Your task to perform on an android device: turn off picture-in-picture Image 0: 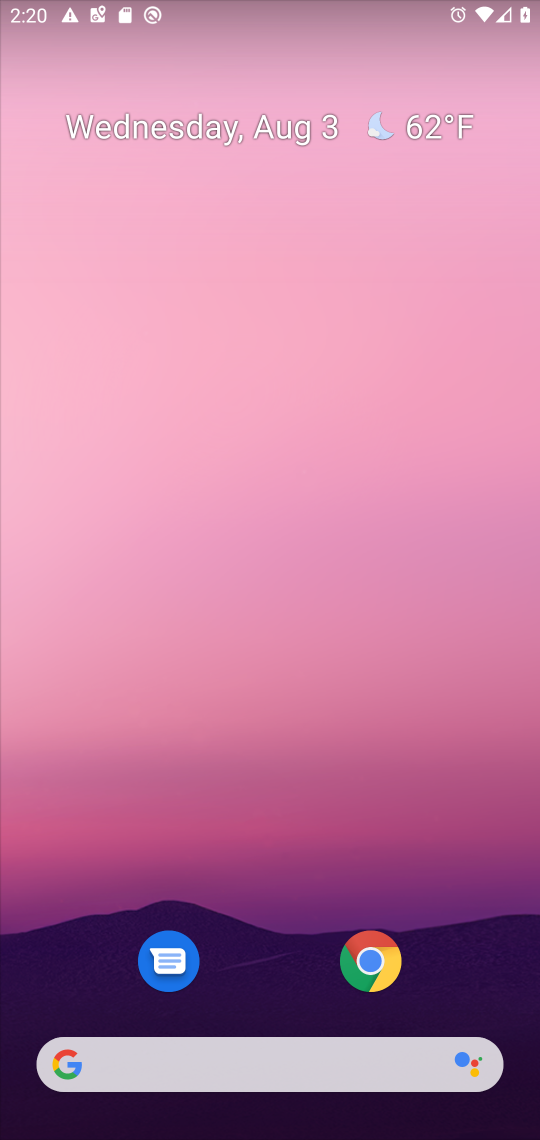
Step 0: click (376, 957)
Your task to perform on an android device: turn off picture-in-picture Image 1: 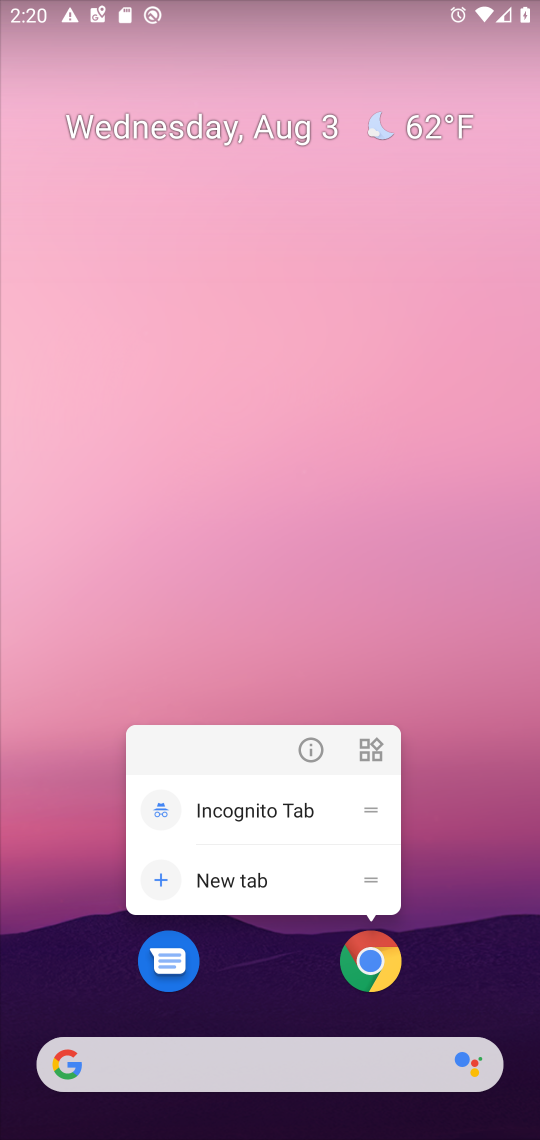
Step 1: click (307, 754)
Your task to perform on an android device: turn off picture-in-picture Image 2: 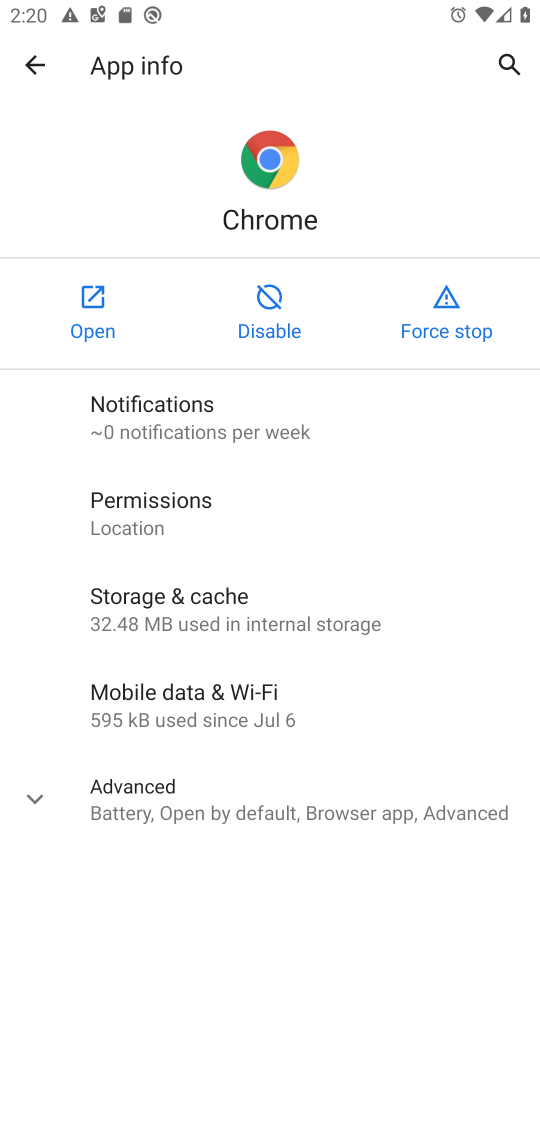
Step 2: click (28, 803)
Your task to perform on an android device: turn off picture-in-picture Image 3: 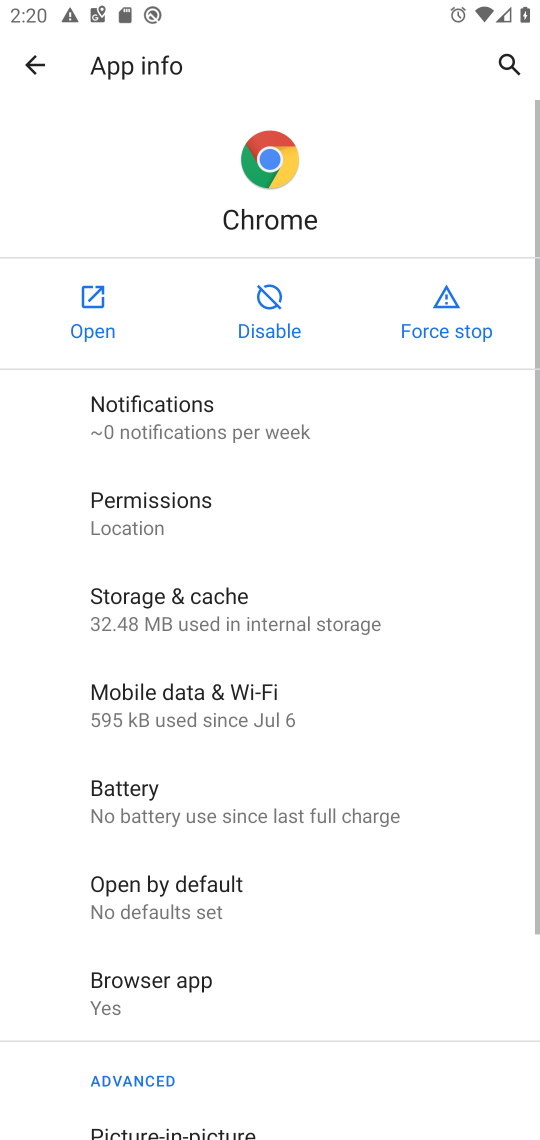
Step 3: drag from (372, 861) to (384, 328)
Your task to perform on an android device: turn off picture-in-picture Image 4: 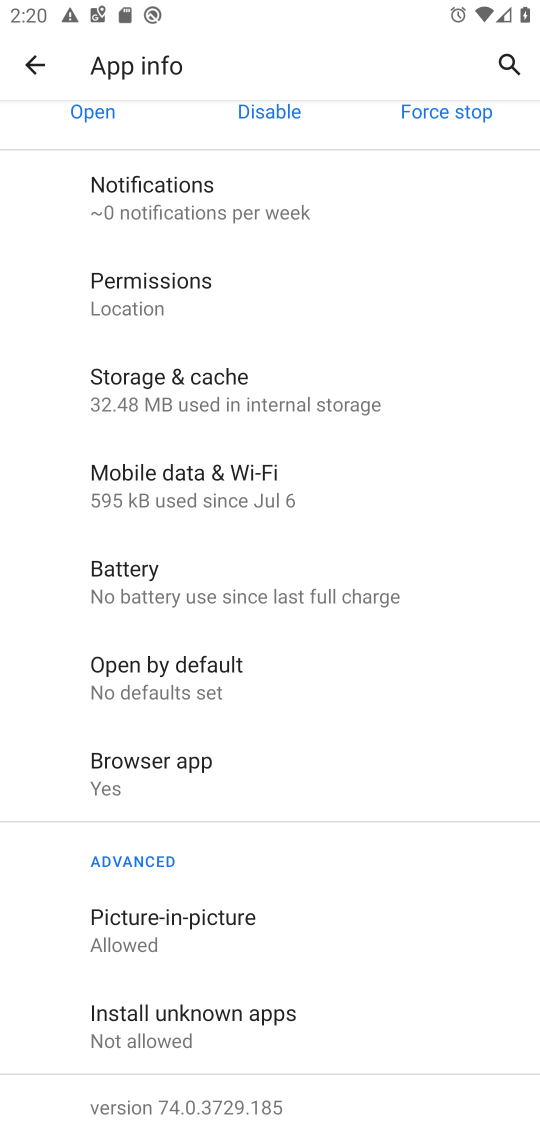
Step 4: click (134, 938)
Your task to perform on an android device: turn off picture-in-picture Image 5: 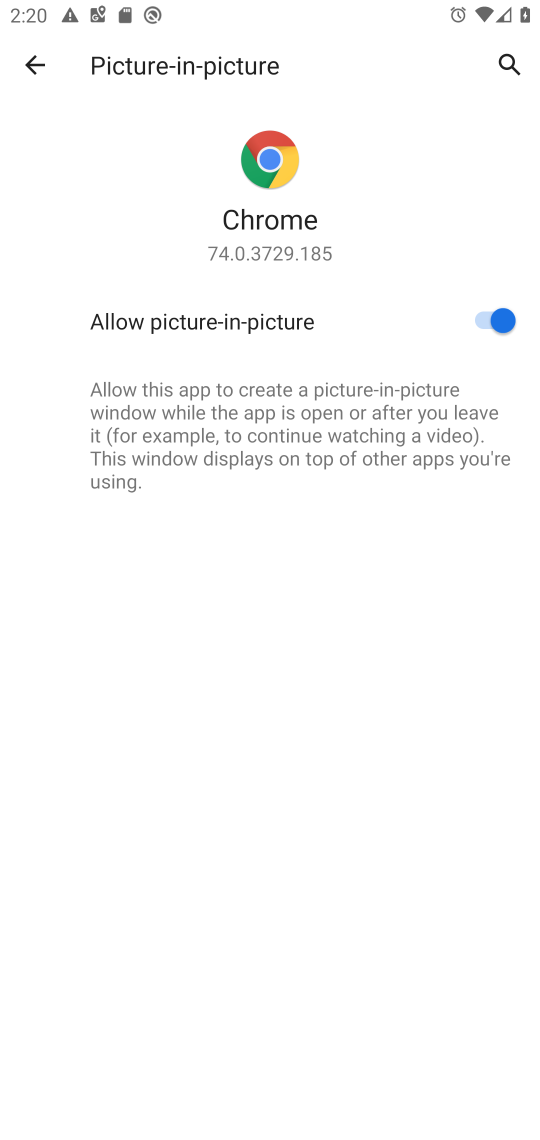
Step 5: click (505, 327)
Your task to perform on an android device: turn off picture-in-picture Image 6: 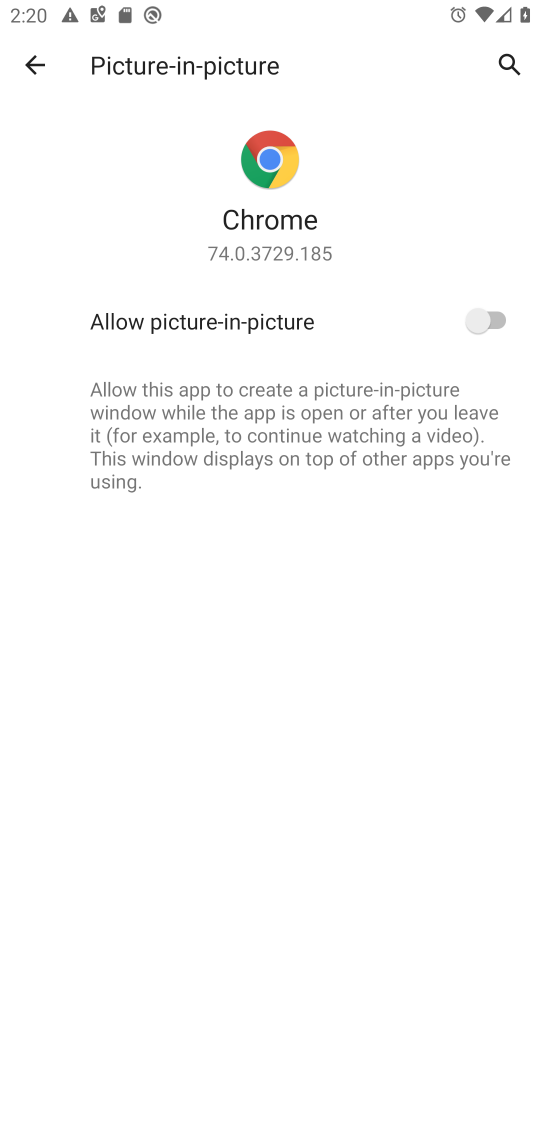
Step 6: task complete